Your task to perform on an android device: visit the assistant section in the google photos Image 0: 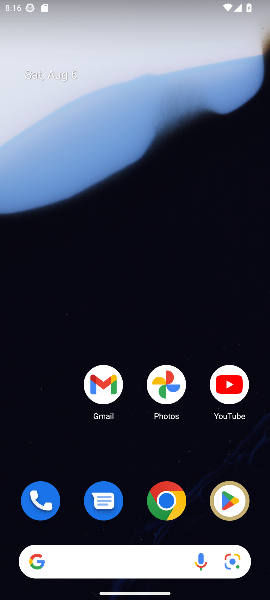
Step 0: click (168, 390)
Your task to perform on an android device: visit the assistant section in the google photos Image 1: 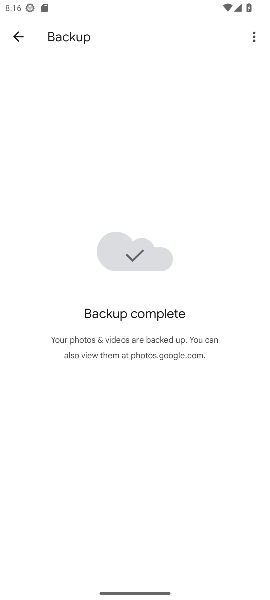
Step 1: click (16, 34)
Your task to perform on an android device: visit the assistant section in the google photos Image 2: 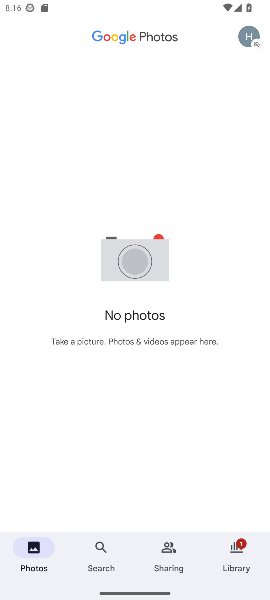
Step 2: click (243, 37)
Your task to perform on an android device: visit the assistant section in the google photos Image 3: 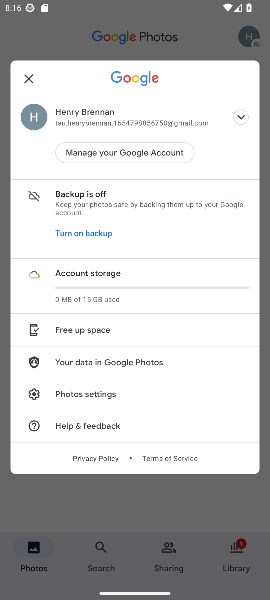
Step 3: task complete